Your task to perform on an android device: Go to CNN.com Image 0: 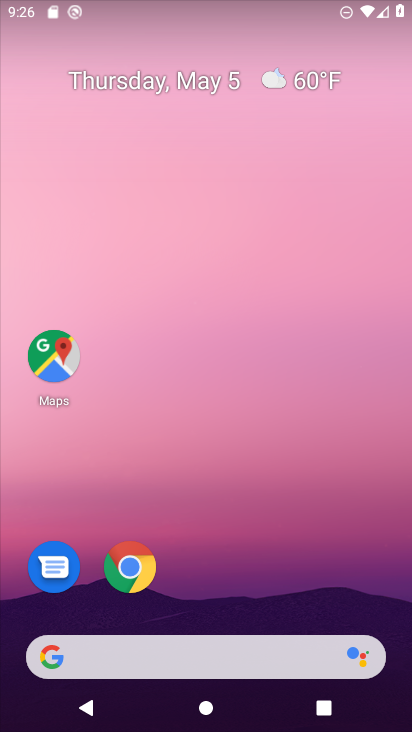
Step 0: click (128, 569)
Your task to perform on an android device: Go to CNN.com Image 1: 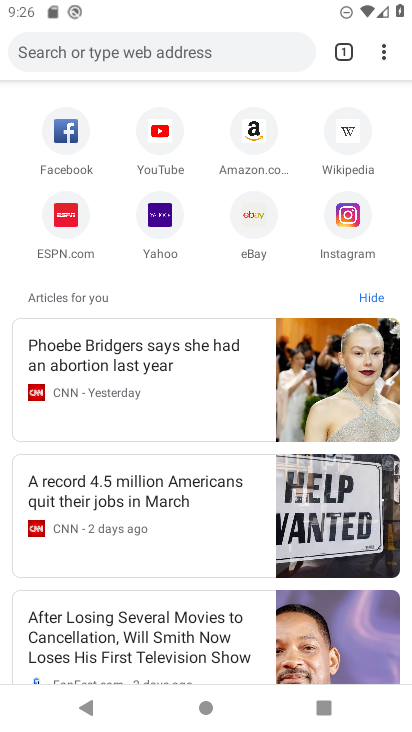
Step 1: click (130, 52)
Your task to perform on an android device: Go to CNN.com Image 2: 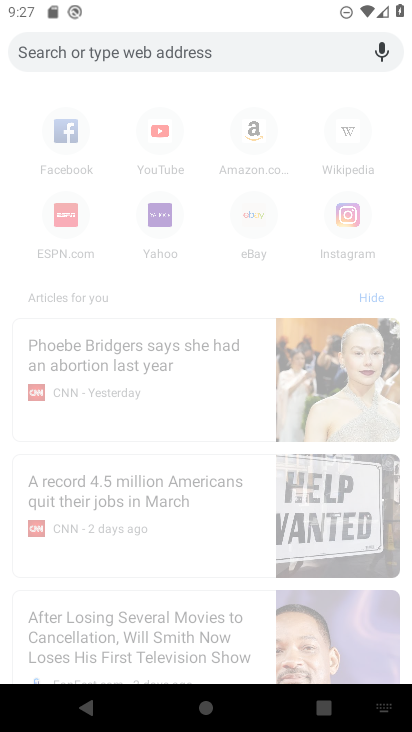
Step 2: type "CNN.com"
Your task to perform on an android device: Go to CNN.com Image 3: 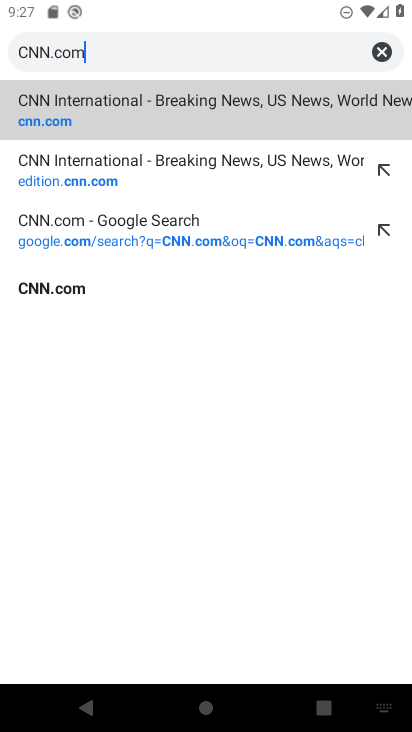
Step 3: click (186, 105)
Your task to perform on an android device: Go to CNN.com Image 4: 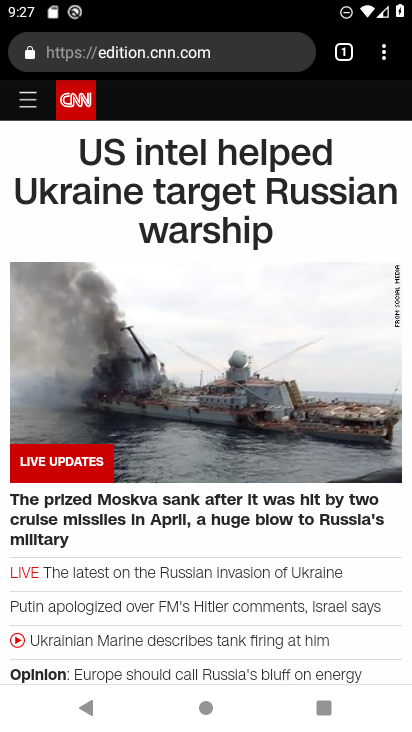
Step 4: task complete